Your task to perform on an android device: see creations saved in the google photos Image 0: 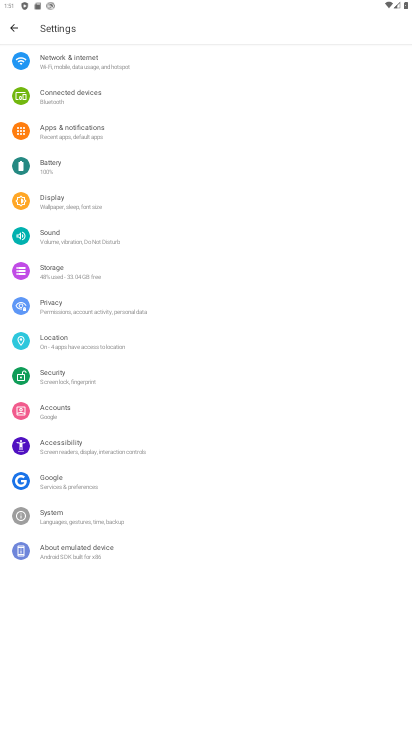
Step 0: press home button
Your task to perform on an android device: see creations saved in the google photos Image 1: 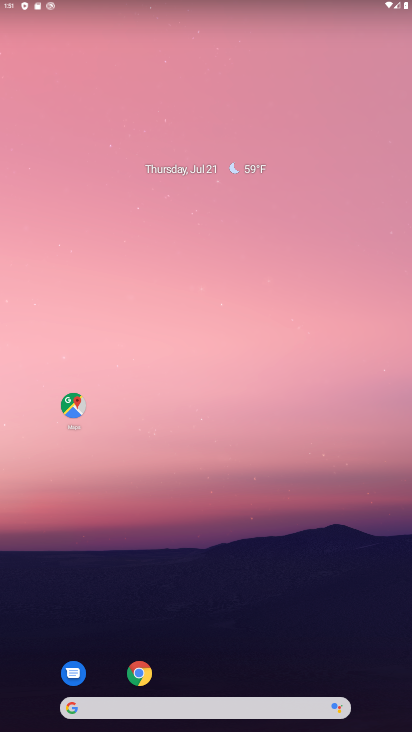
Step 1: drag from (191, 705) to (178, 256)
Your task to perform on an android device: see creations saved in the google photos Image 2: 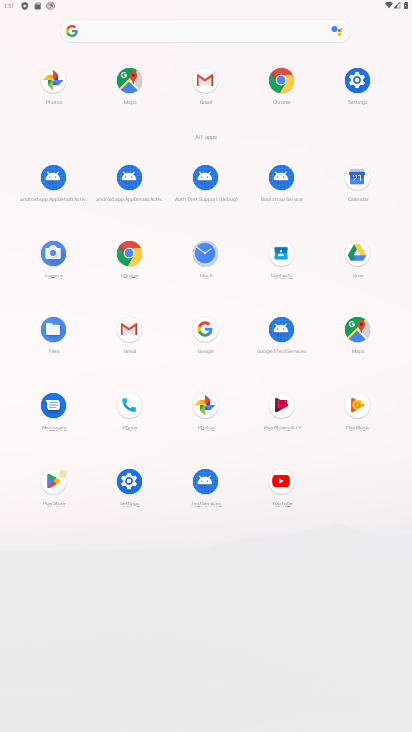
Step 2: click (207, 405)
Your task to perform on an android device: see creations saved in the google photos Image 3: 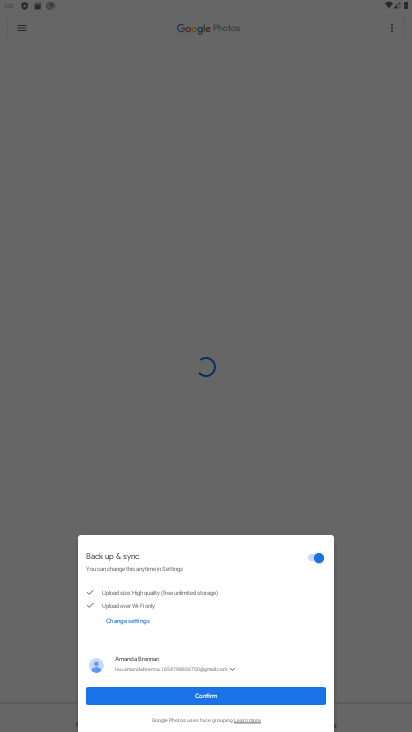
Step 3: click (203, 698)
Your task to perform on an android device: see creations saved in the google photos Image 4: 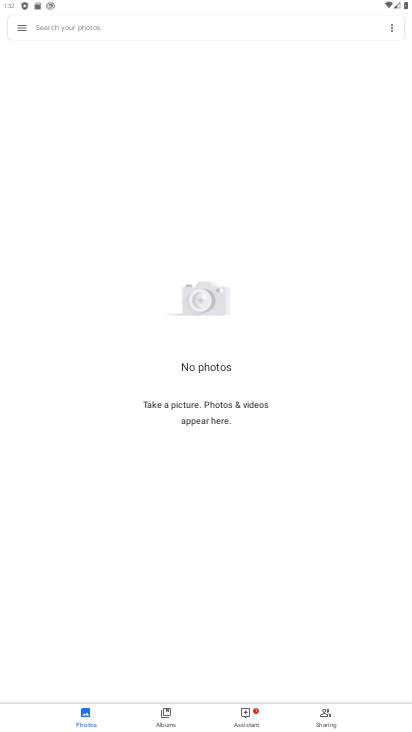
Step 4: click (393, 29)
Your task to perform on an android device: see creations saved in the google photos Image 5: 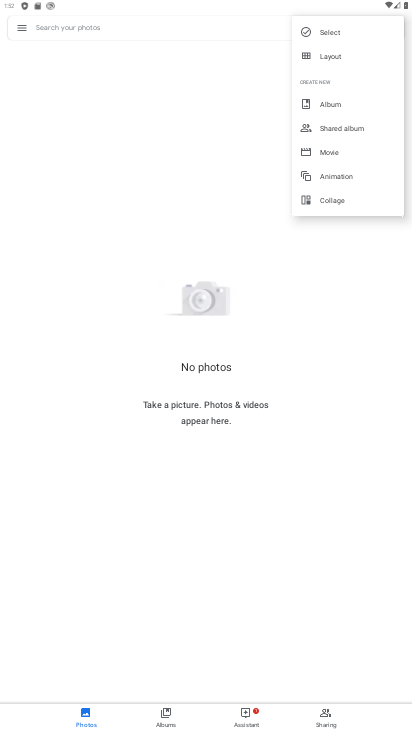
Step 5: click (20, 30)
Your task to perform on an android device: see creations saved in the google photos Image 6: 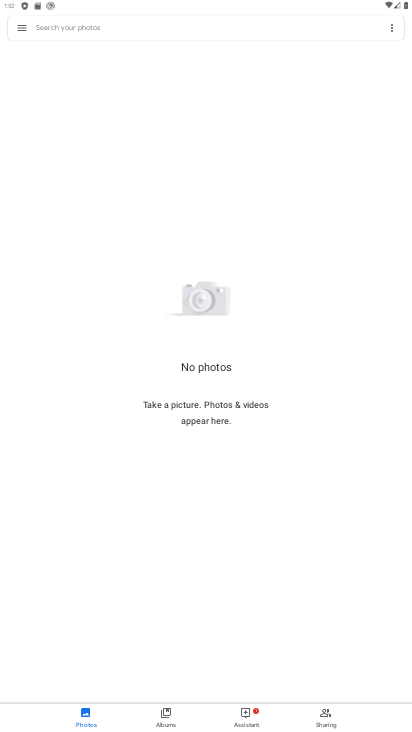
Step 6: click (47, 30)
Your task to perform on an android device: see creations saved in the google photos Image 7: 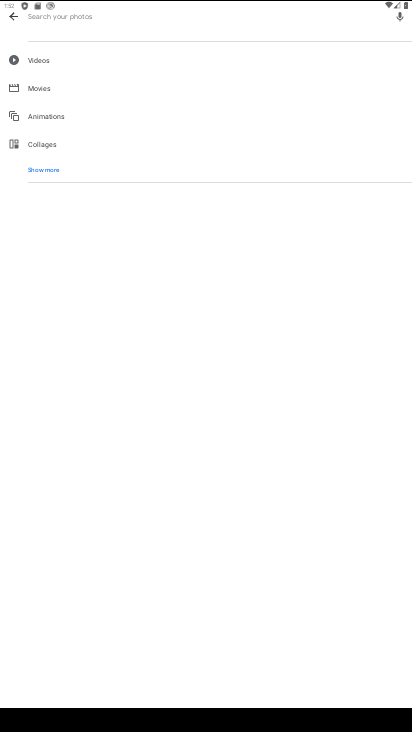
Step 7: click (41, 172)
Your task to perform on an android device: see creations saved in the google photos Image 8: 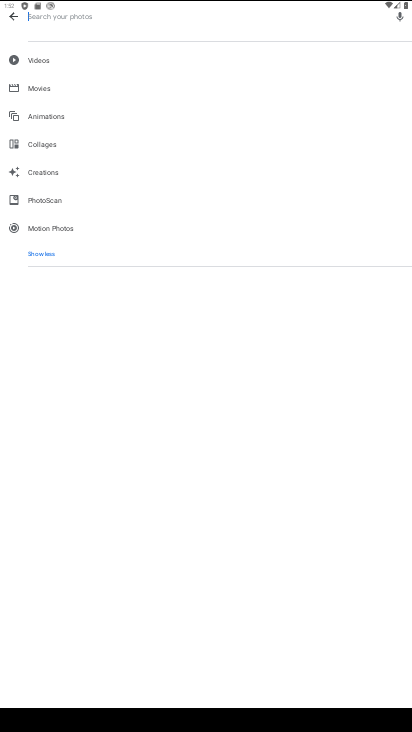
Step 8: click (41, 172)
Your task to perform on an android device: see creations saved in the google photos Image 9: 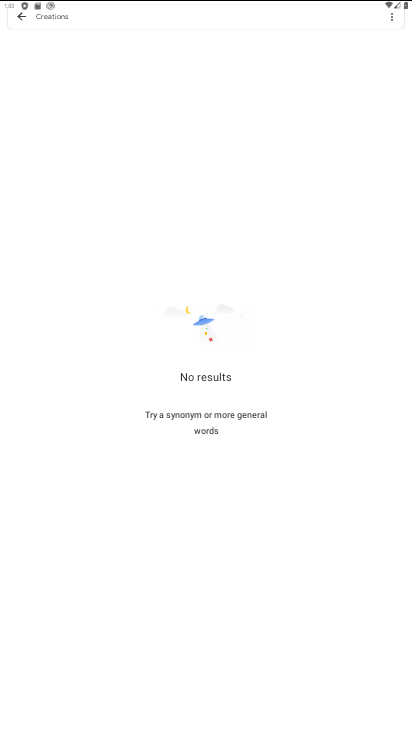
Step 9: task complete